Your task to perform on an android device: Who is the prime minister of Canada? Image 0: 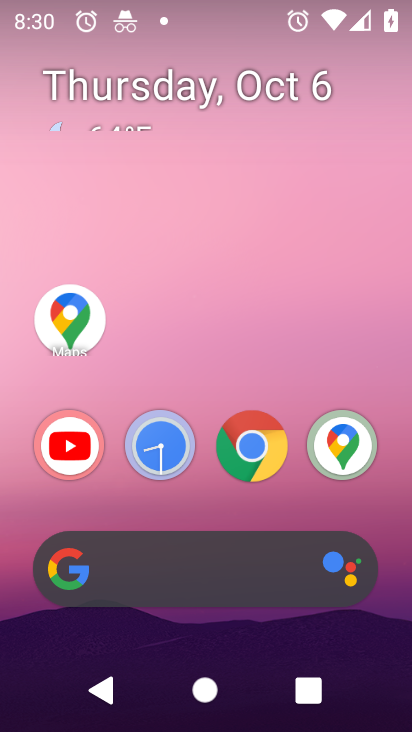
Step 0: click (205, 587)
Your task to perform on an android device: Who is the prime minister of Canada? Image 1: 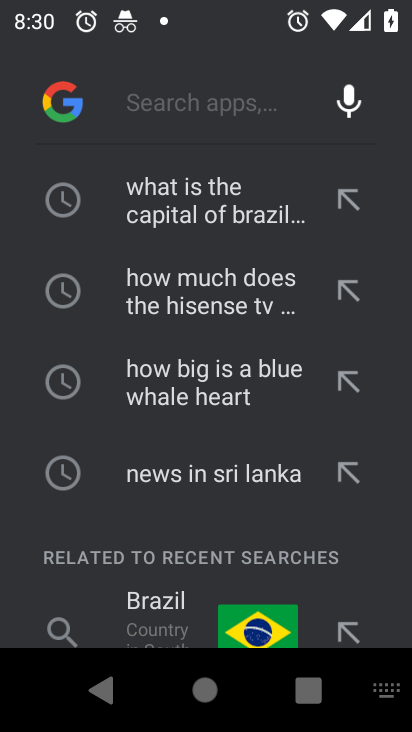
Step 1: type "Who is the prime minister of Canada?"
Your task to perform on an android device: Who is the prime minister of Canada? Image 2: 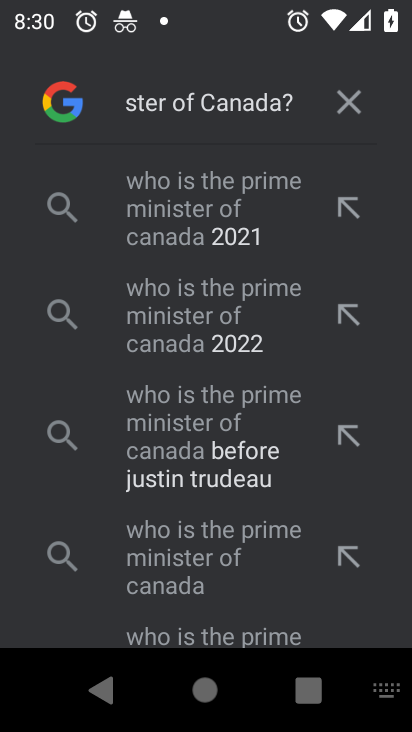
Step 2: click (168, 216)
Your task to perform on an android device: Who is the prime minister of Canada? Image 3: 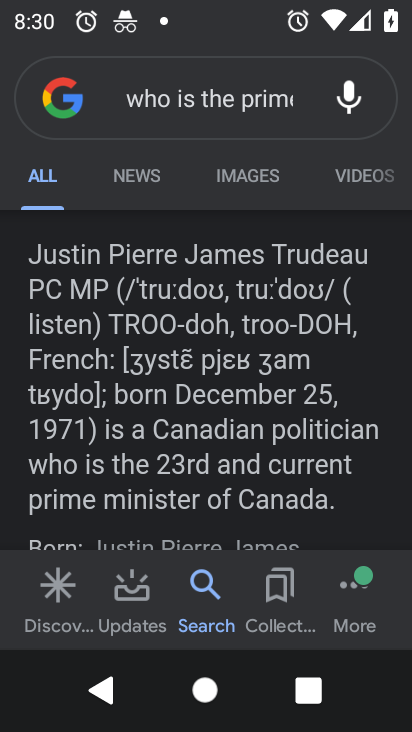
Step 3: task complete